Your task to perform on an android device: Show the shopping cart on newegg.com. Add "lg ultragear" to the cart on newegg.com, then select checkout. Image 0: 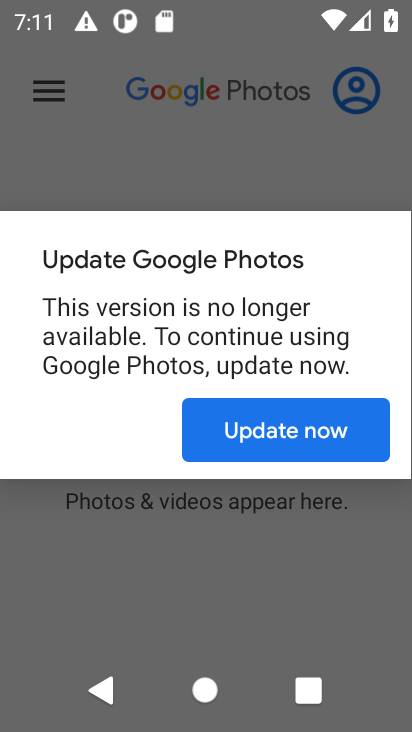
Step 0: press home button
Your task to perform on an android device: Show the shopping cart on newegg.com. Add "lg ultragear" to the cart on newegg.com, then select checkout. Image 1: 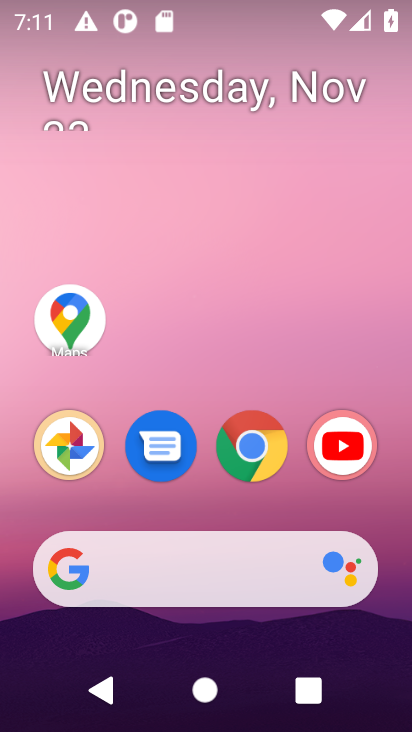
Step 1: click (229, 570)
Your task to perform on an android device: Show the shopping cart on newegg.com. Add "lg ultragear" to the cart on newegg.com, then select checkout. Image 2: 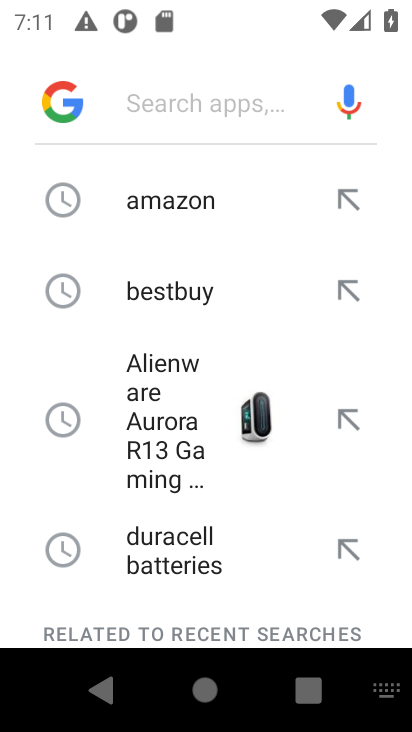
Step 2: type "newegg.com"
Your task to perform on an android device: Show the shopping cart on newegg.com. Add "lg ultragear" to the cart on newegg.com, then select checkout. Image 3: 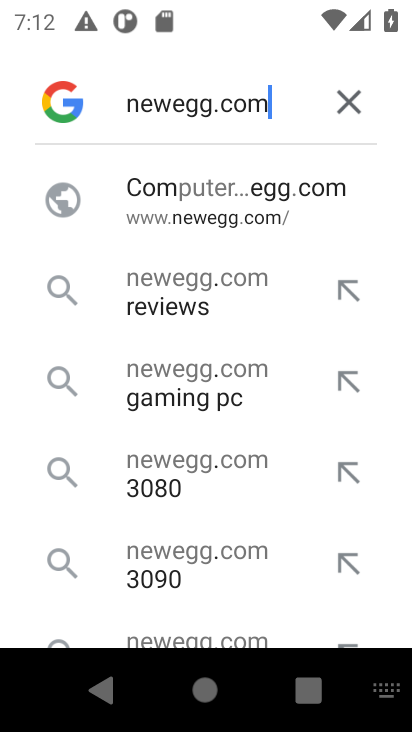
Step 3: click (266, 238)
Your task to perform on an android device: Show the shopping cart on newegg.com. Add "lg ultragear" to the cart on newegg.com, then select checkout. Image 4: 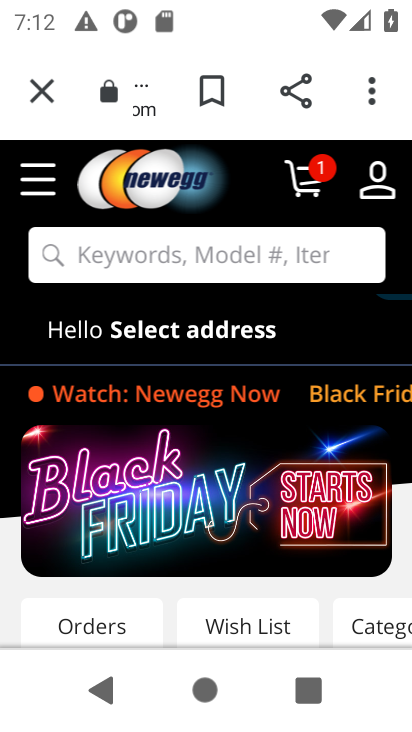
Step 4: click (244, 262)
Your task to perform on an android device: Show the shopping cart on newegg.com. Add "lg ultragear" to the cart on newegg.com, then select checkout. Image 5: 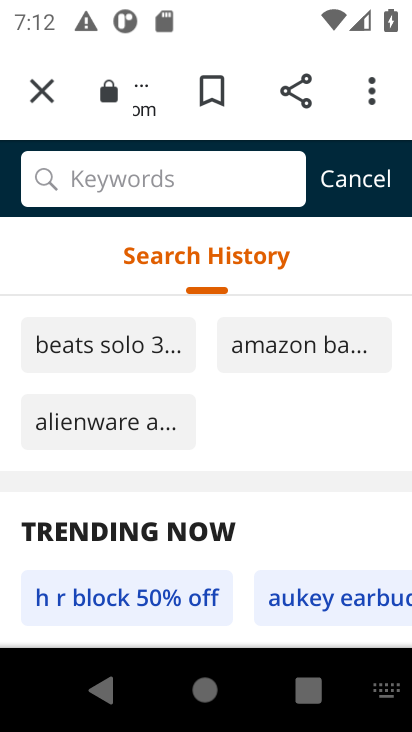
Step 5: type "lg ultragear"
Your task to perform on an android device: Show the shopping cart on newegg.com. Add "lg ultragear" to the cart on newegg.com, then select checkout. Image 6: 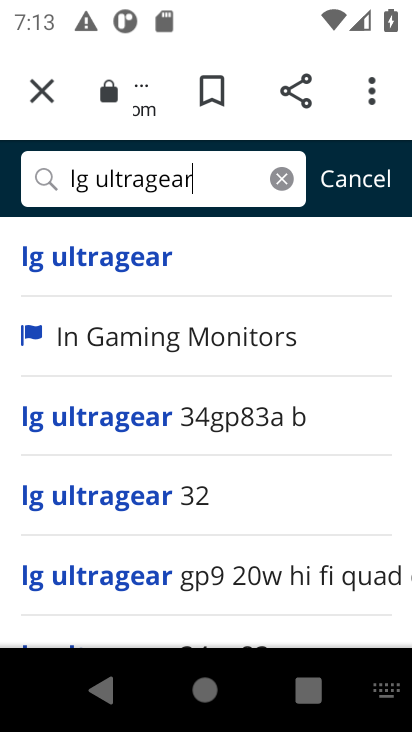
Step 6: click (216, 232)
Your task to perform on an android device: Show the shopping cart on newegg.com. Add "lg ultragear" to the cart on newegg.com, then select checkout. Image 7: 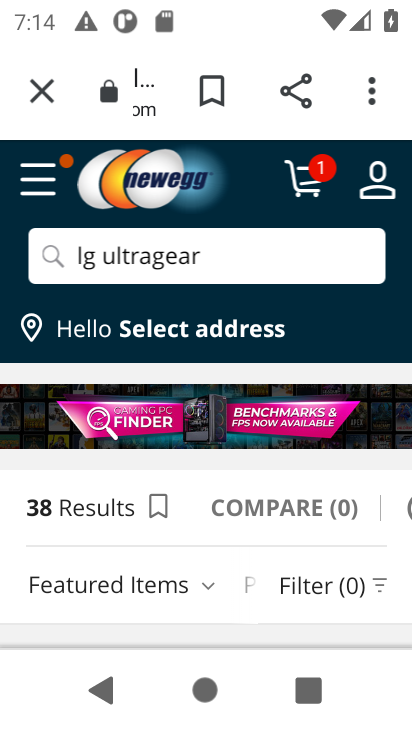
Step 7: drag from (198, 627) to (244, 205)
Your task to perform on an android device: Show the shopping cart on newegg.com. Add "lg ultragear" to the cart on newegg.com, then select checkout. Image 8: 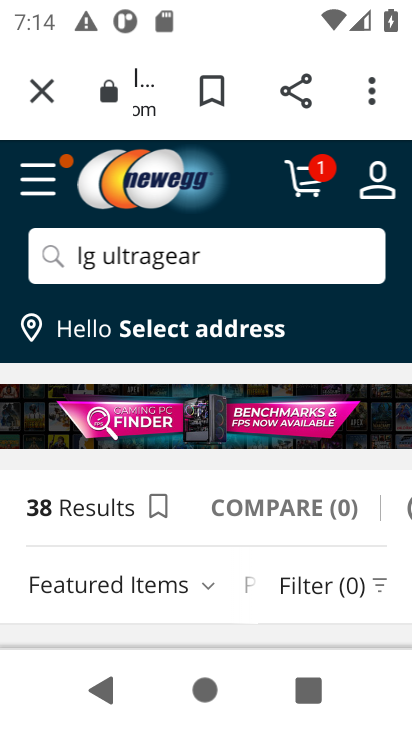
Step 8: drag from (201, 639) to (249, 326)
Your task to perform on an android device: Show the shopping cart on newegg.com. Add "lg ultragear" to the cart on newegg.com, then select checkout. Image 9: 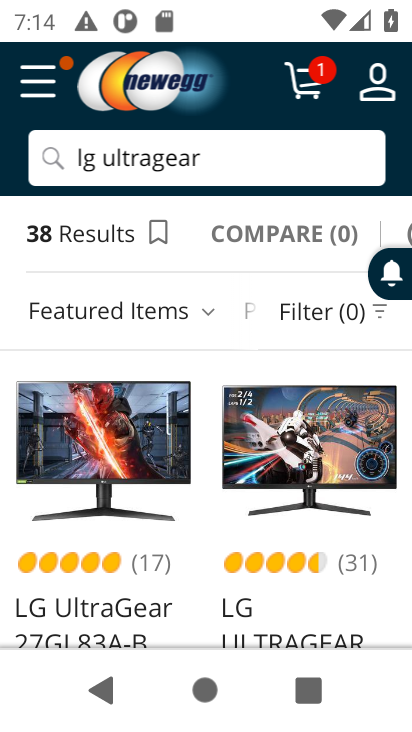
Step 9: click (80, 606)
Your task to perform on an android device: Show the shopping cart on newegg.com. Add "lg ultragear" to the cart on newegg.com, then select checkout. Image 10: 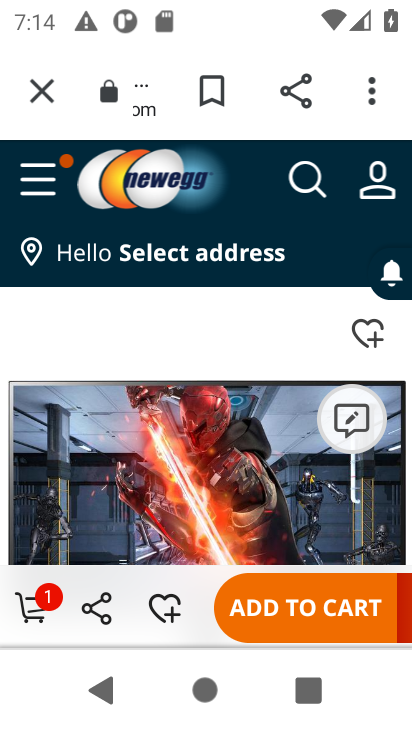
Step 10: click (301, 606)
Your task to perform on an android device: Show the shopping cart on newegg.com. Add "lg ultragear" to the cart on newegg.com, then select checkout. Image 11: 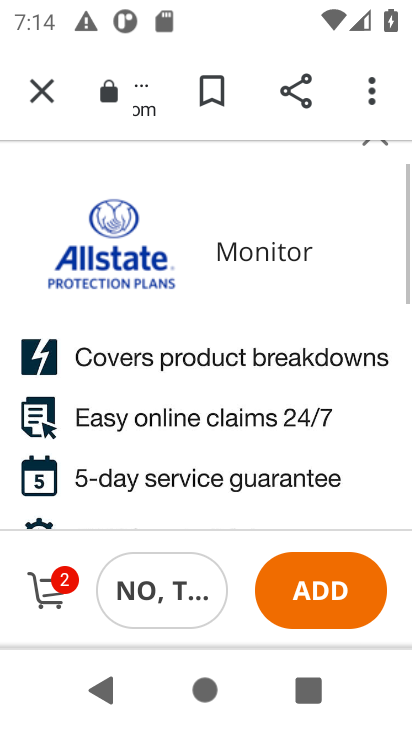
Step 11: task complete